Your task to perform on an android device: see creations saved in the google photos Image 0: 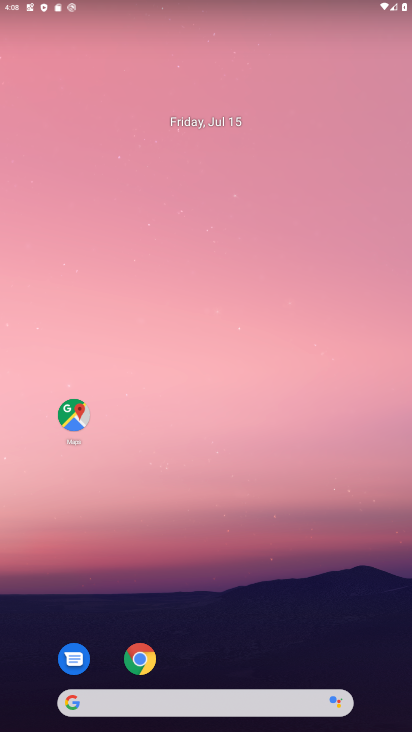
Step 0: drag from (252, 652) to (196, 90)
Your task to perform on an android device: see creations saved in the google photos Image 1: 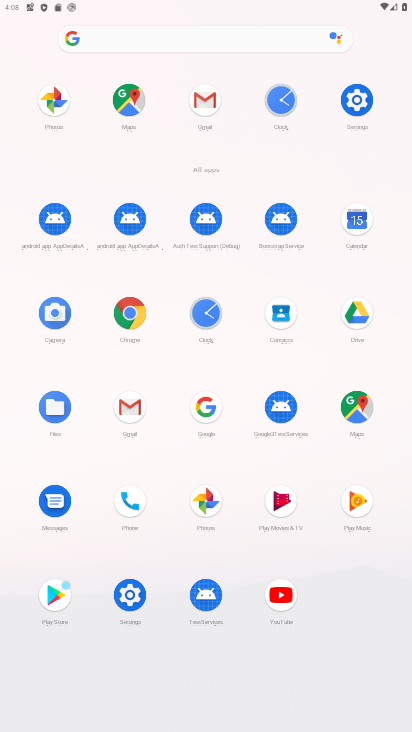
Step 1: click (60, 97)
Your task to perform on an android device: see creations saved in the google photos Image 2: 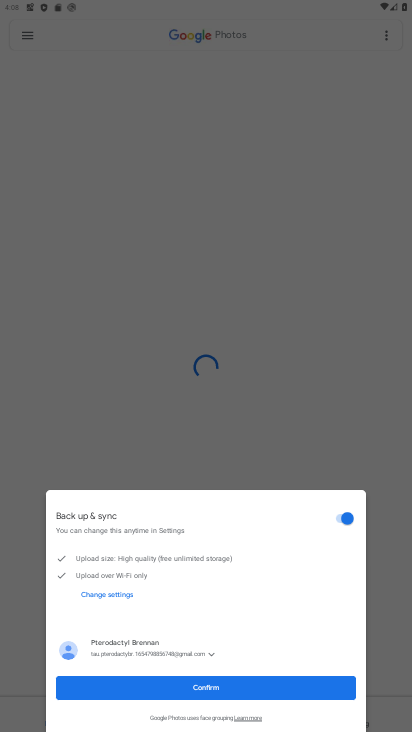
Step 2: click (233, 685)
Your task to perform on an android device: see creations saved in the google photos Image 3: 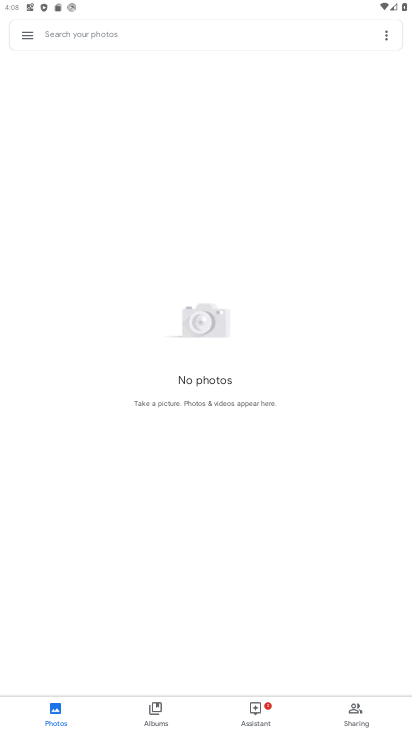
Step 3: click (91, 38)
Your task to perform on an android device: see creations saved in the google photos Image 4: 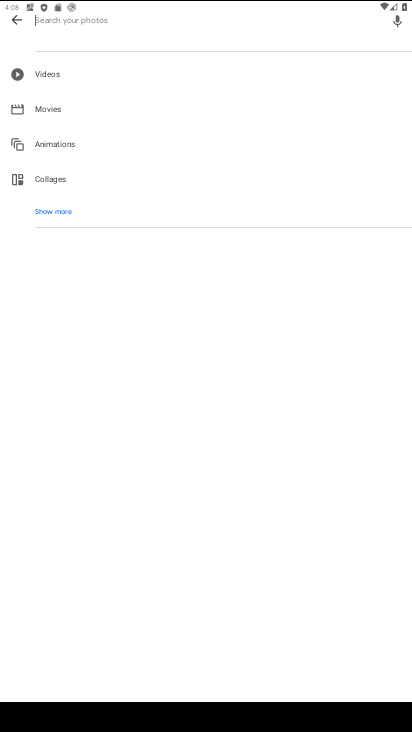
Step 4: click (62, 212)
Your task to perform on an android device: see creations saved in the google photos Image 5: 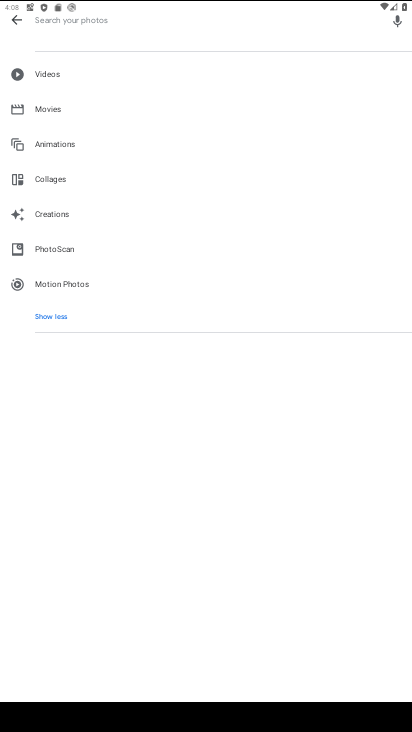
Step 5: click (61, 221)
Your task to perform on an android device: see creations saved in the google photos Image 6: 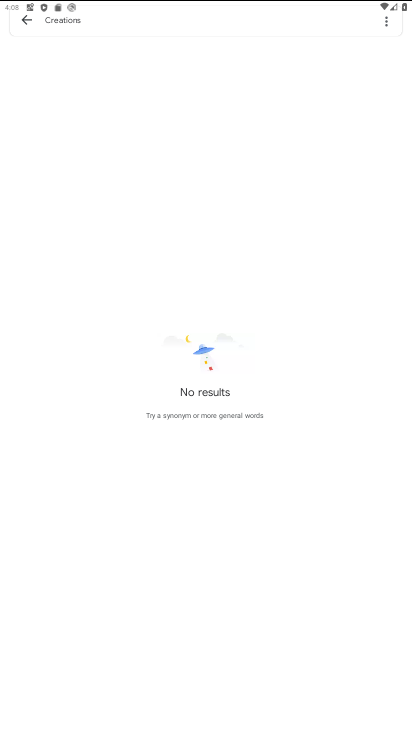
Step 6: task complete